Your task to perform on an android device: Go to Yahoo.com Image 0: 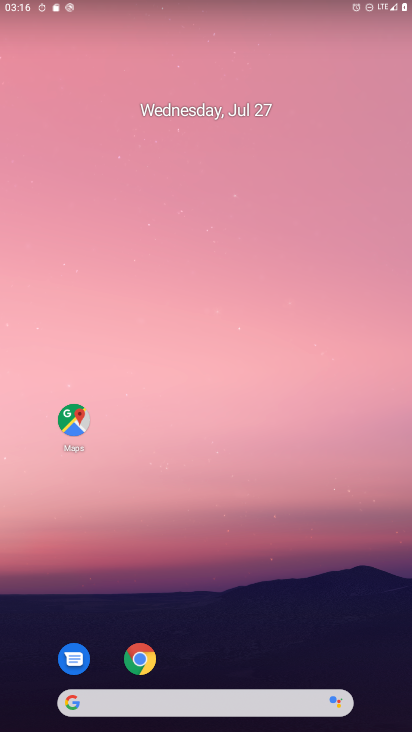
Step 0: drag from (356, 597) to (358, 83)
Your task to perform on an android device: Go to Yahoo.com Image 1: 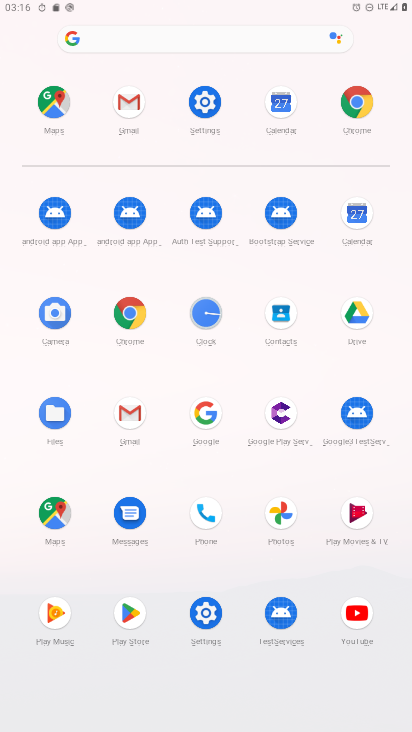
Step 1: click (352, 101)
Your task to perform on an android device: Go to Yahoo.com Image 2: 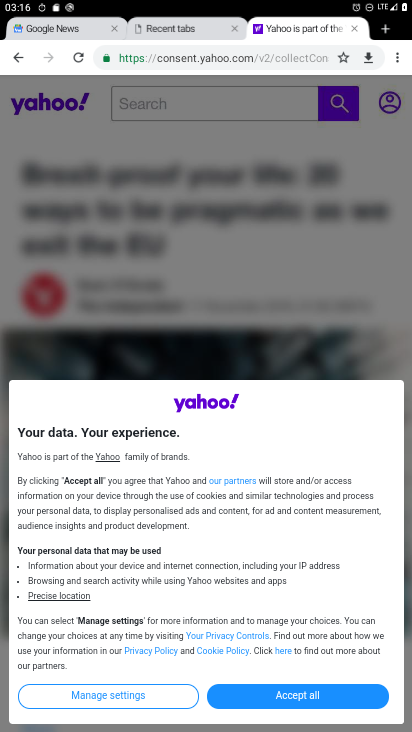
Step 2: task complete